Your task to perform on an android device: Open wifi settings Image 0: 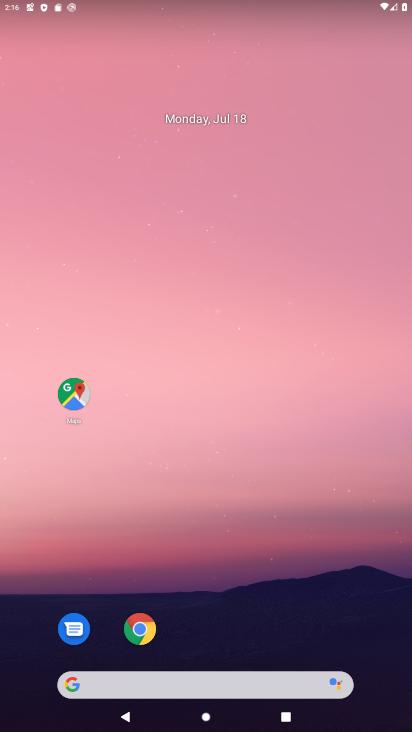
Step 0: drag from (216, 635) to (264, 246)
Your task to perform on an android device: Open wifi settings Image 1: 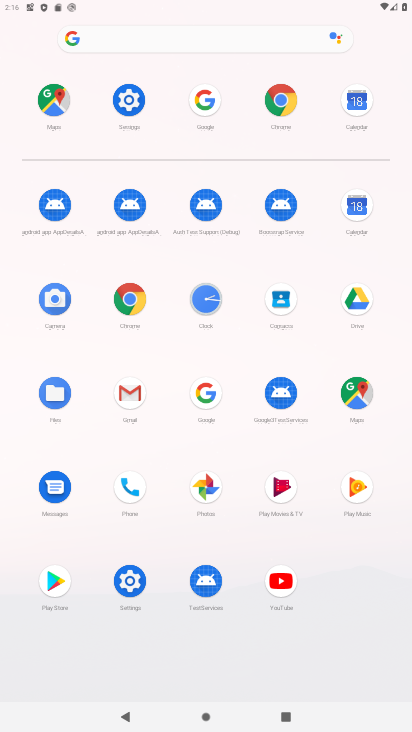
Step 1: click (129, 103)
Your task to perform on an android device: Open wifi settings Image 2: 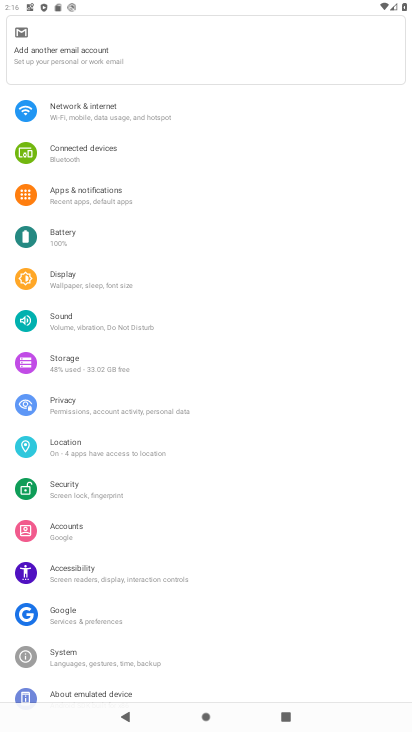
Step 2: click (132, 112)
Your task to perform on an android device: Open wifi settings Image 3: 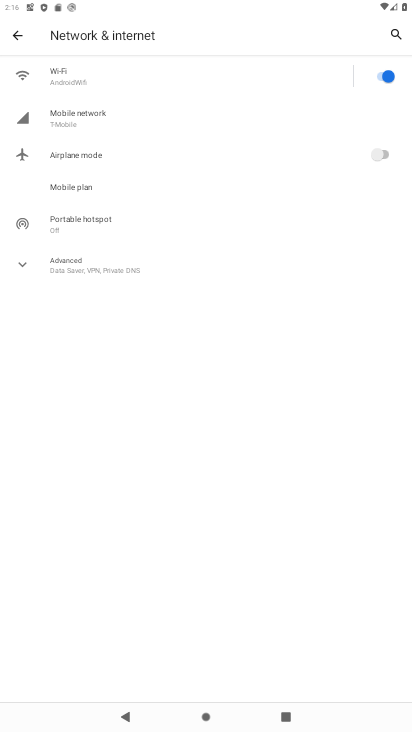
Step 3: click (215, 75)
Your task to perform on an android device: Open wifi settings Image 4: 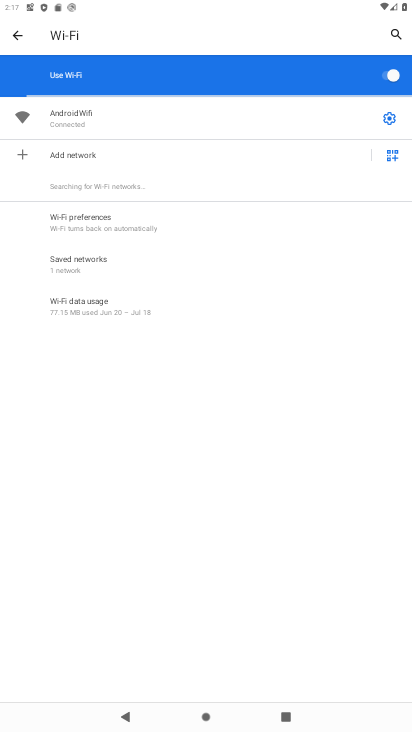
Step 4: task complete